Your task to perform on an android device: Search for rayovac triple a on bestbuy, select the first entry, add it to the cart, then select checkout. Image 0: 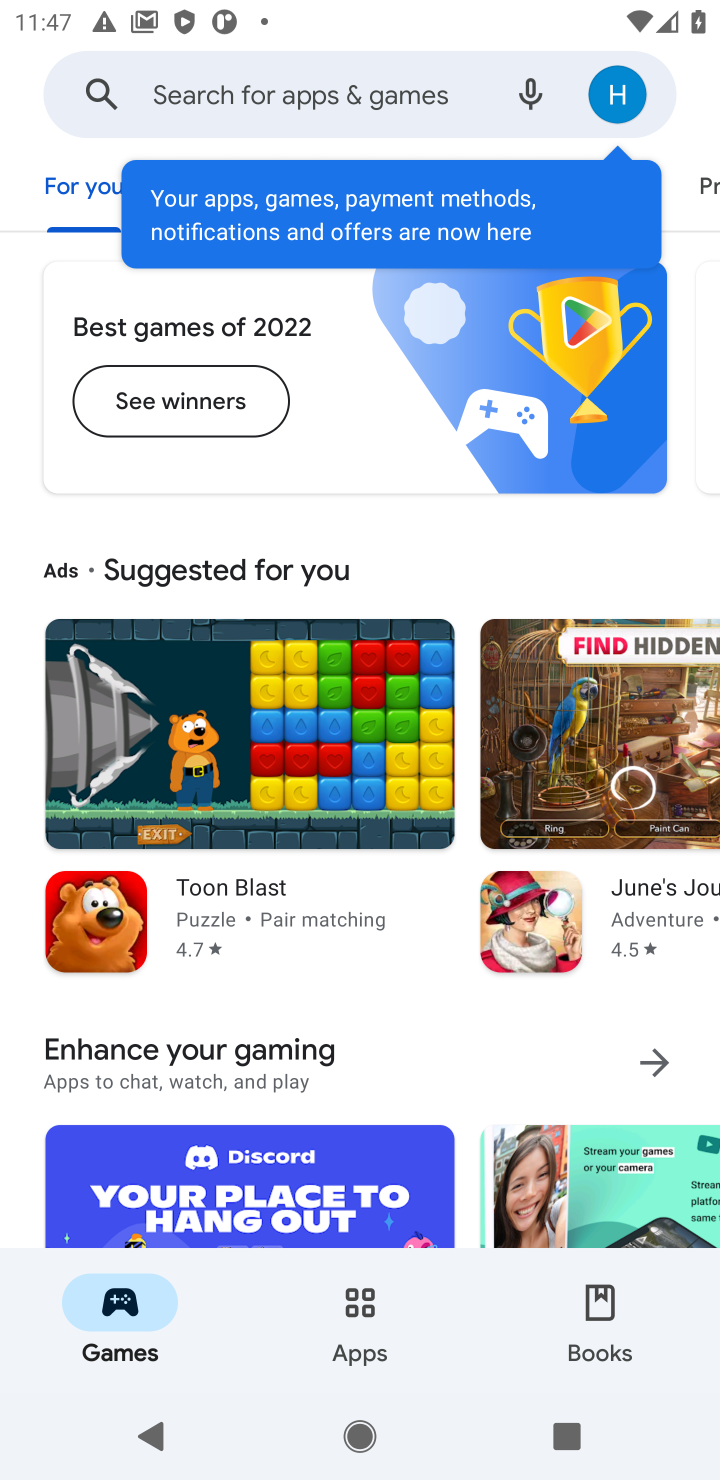
Step 0: press home button
Your task to perform on an android device: Search for rayovac triple a on bestbuy, select the first entry, add it to the cart, then select checkout. Image 1: 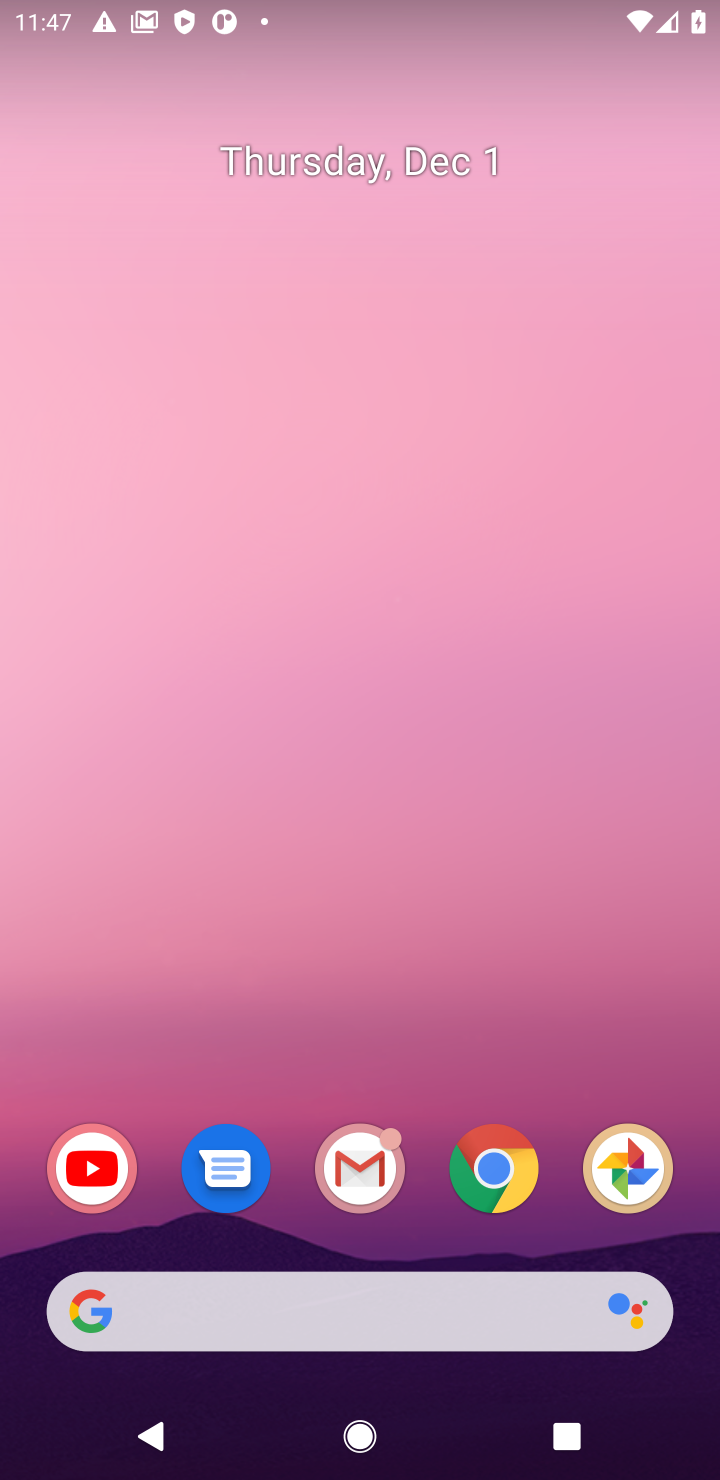
Step 1: click (502, 1177)
Your task to perform on an android device: Search for rayovac triple a on bestbuy, select the first entry, add it to the cart, then select checkout. Image 2: 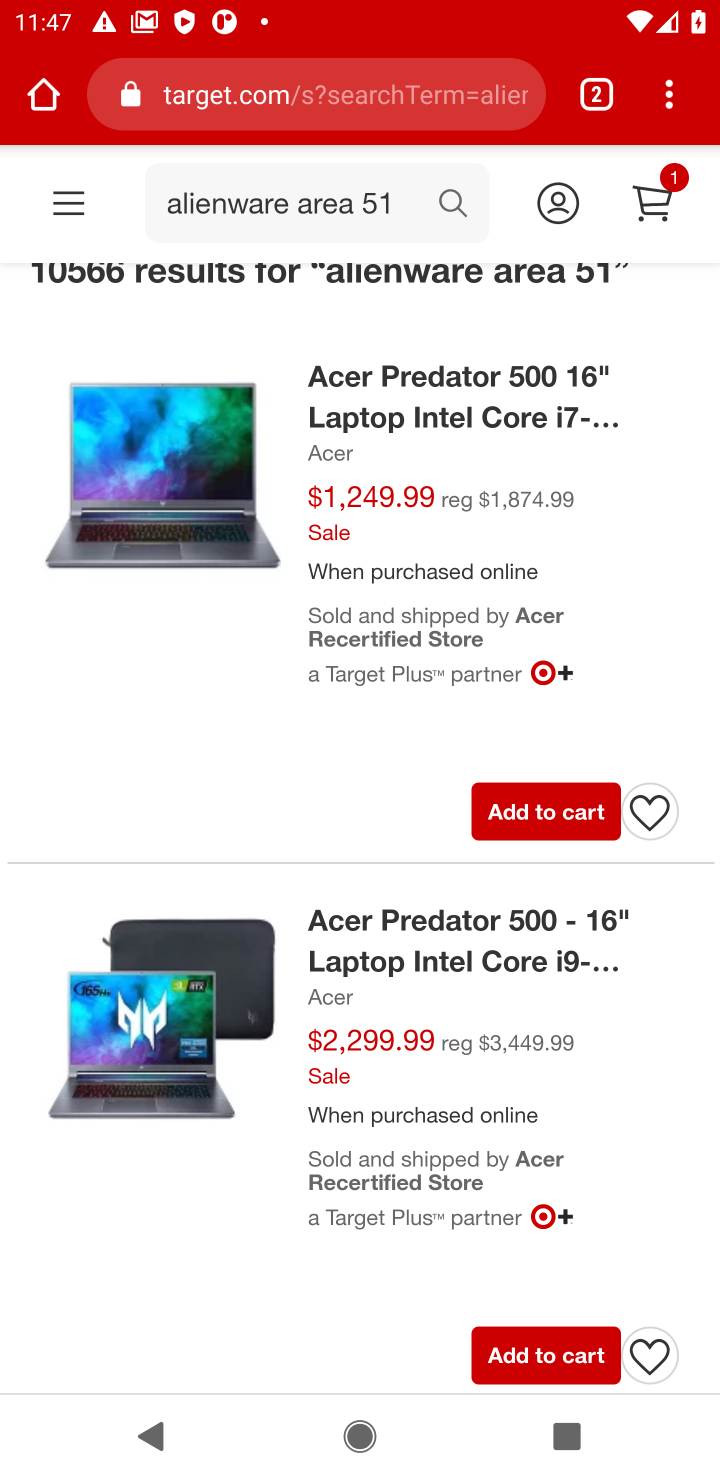
Step 2: click (260, 104)
Your task to perform on an android device: Search for rayovac triple a on bestbuy, select the first entry, add it to the cart, then select checkout. Image 3: 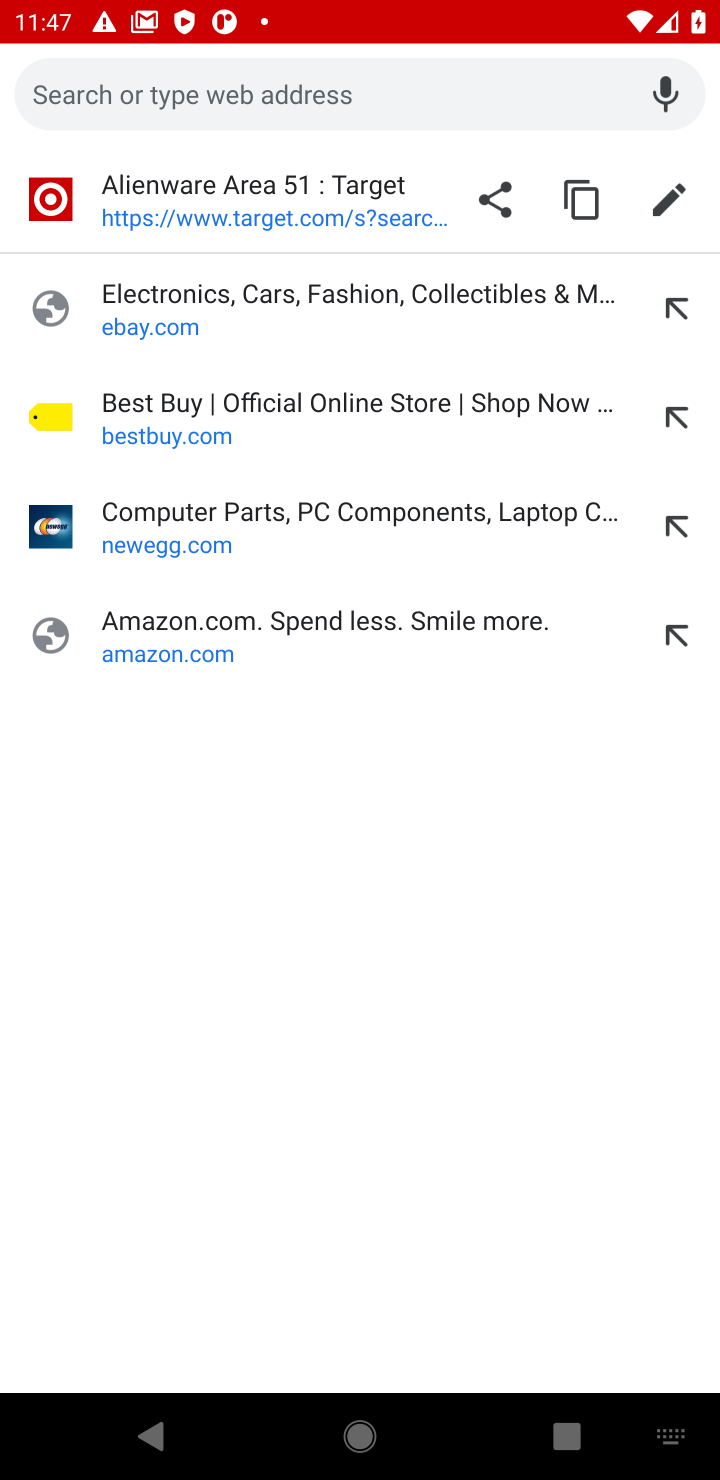
Step 3: click (157, 425)
Your task to perform on an android device: Search for rayovac triple a on bestbuy, select the first entry, add it to the cart, then select checkout. Image 4: 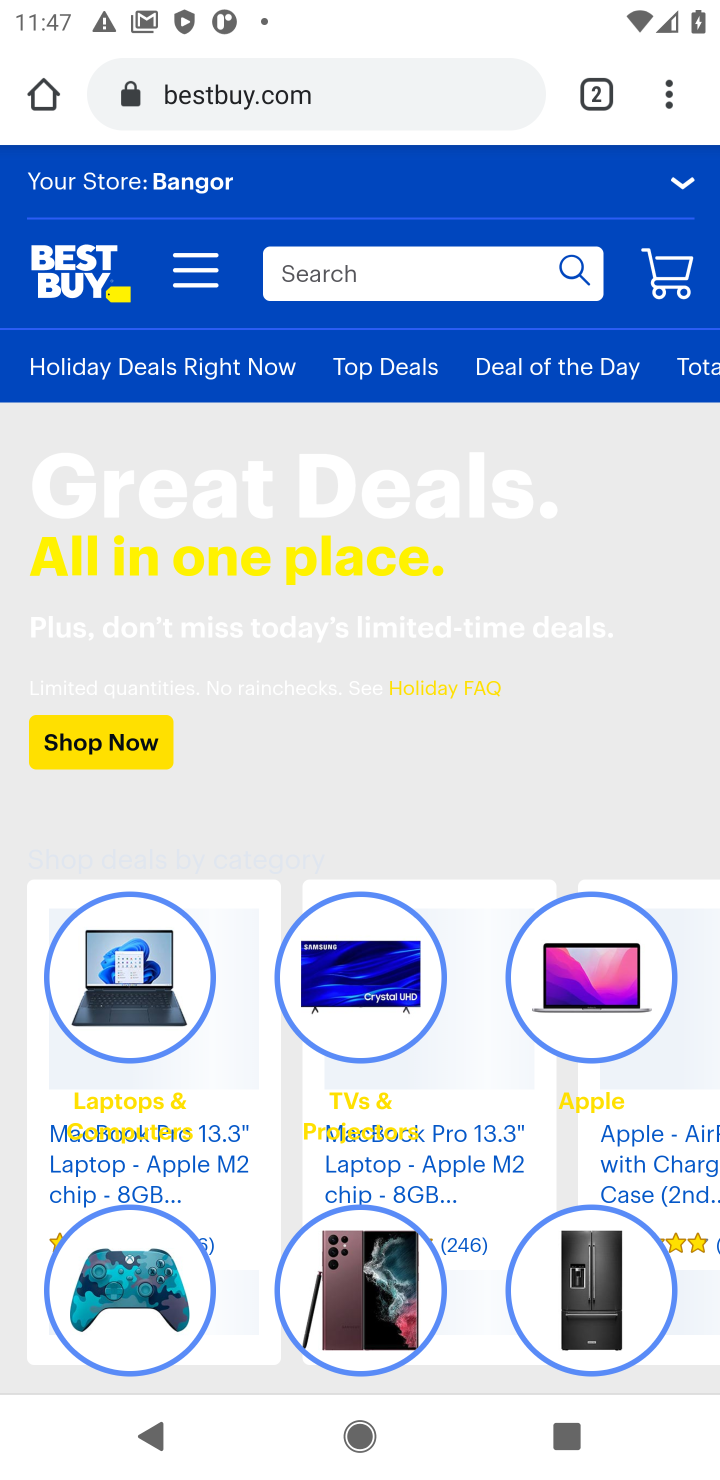
Step 4: click (319, 280)
Your task to perform on an android device: Search for rayovac triple a on bestbuy, select the first entry, add it to the cart, then select checkout. Image 5: 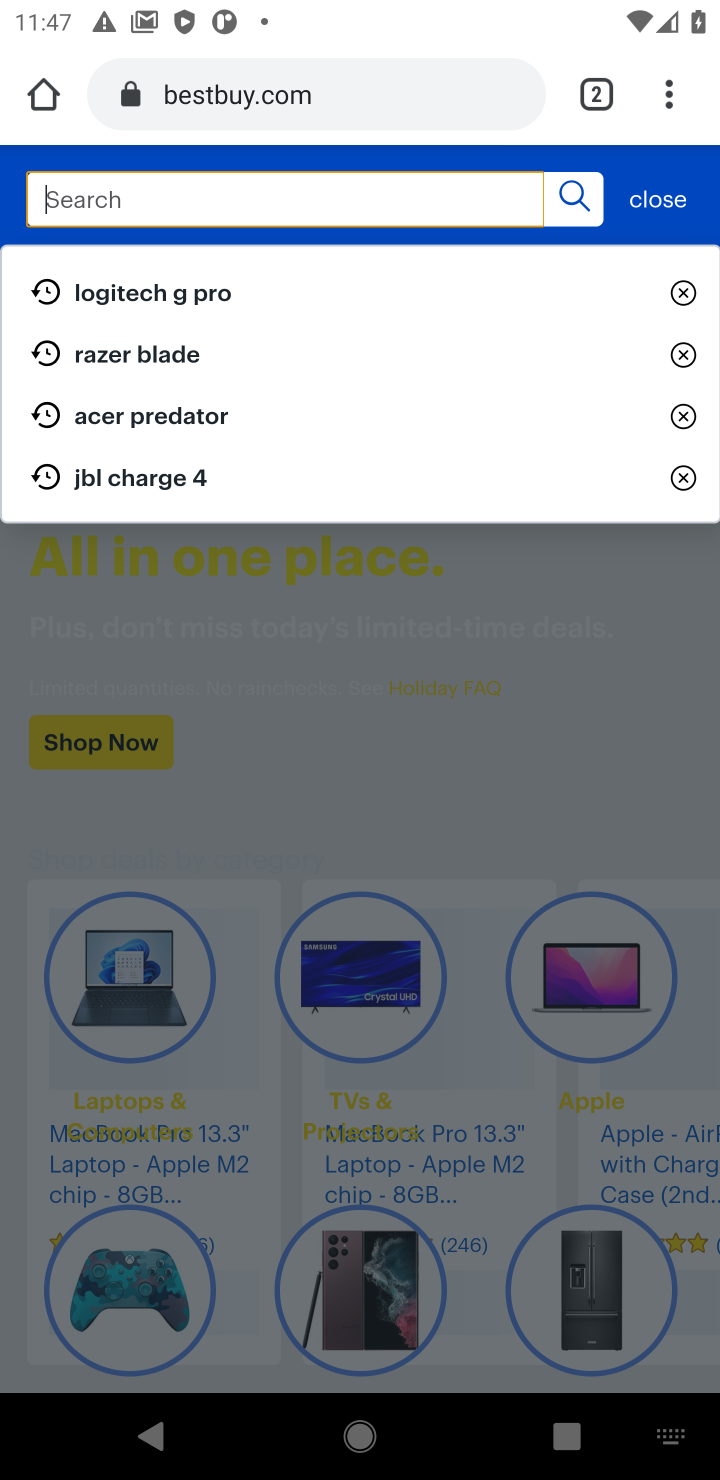
Step 5: type "rayovac triple a"
Your task to perform on an android device: Search for rayovac triple a on bestbuy, select the first entry, add it to the cart, then select checkout. Image 6: 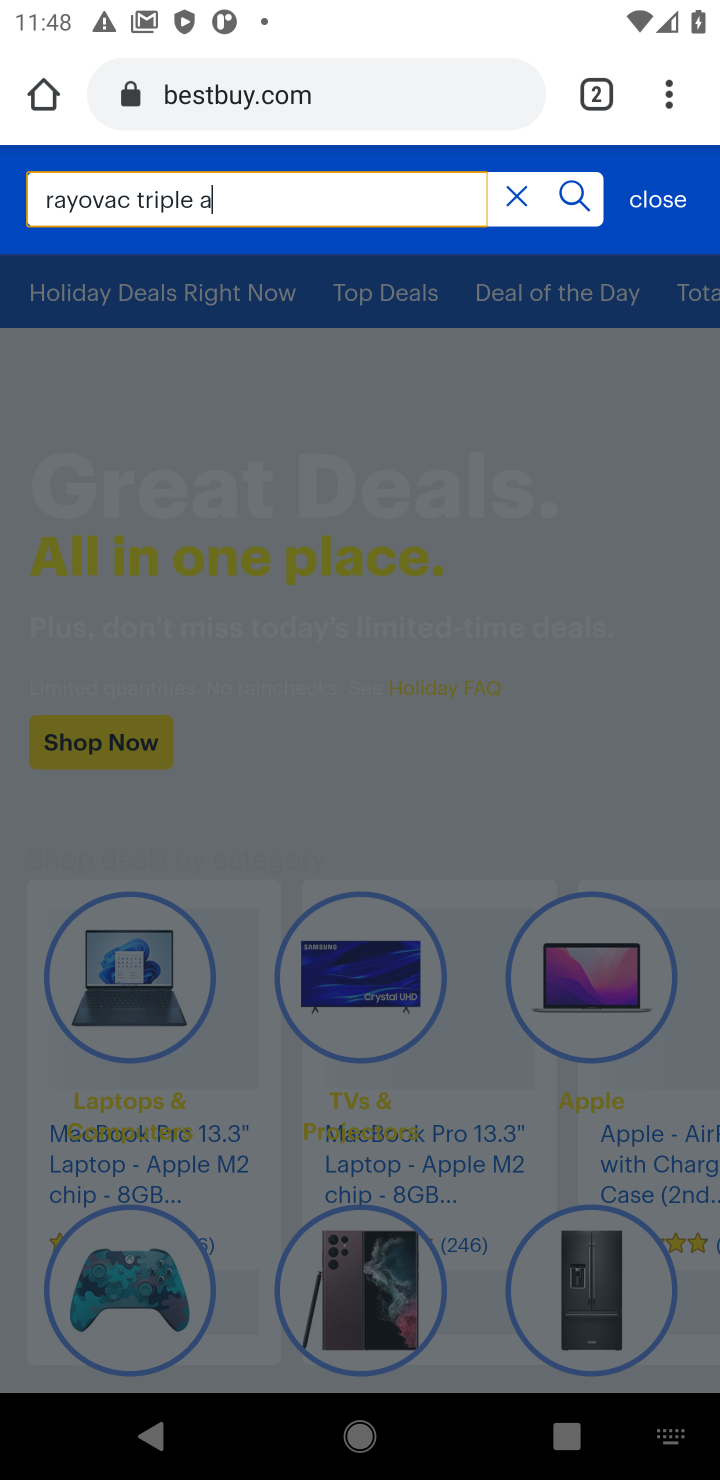
Step 6: click (574, 196)
Your task to perform on an android device: Search for rayovac triple a on bestbuy, select the first entry, add it to the cart, then select checkout. Image 7: 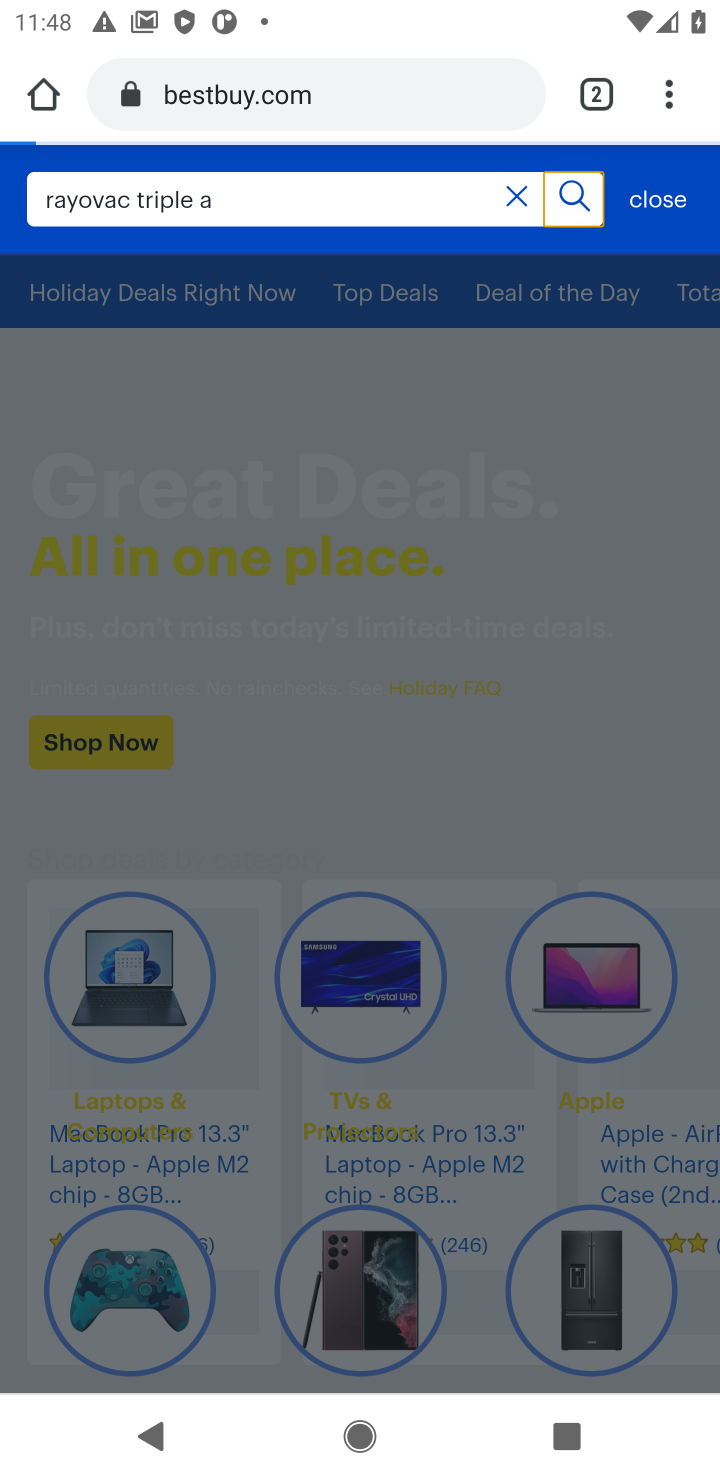
Step 7: click (572, 200)
Your task to perform on an android device: Search for rayovac triple a on bestbuy, select the first entry, add it to the cart, then select checkout. Image 8: 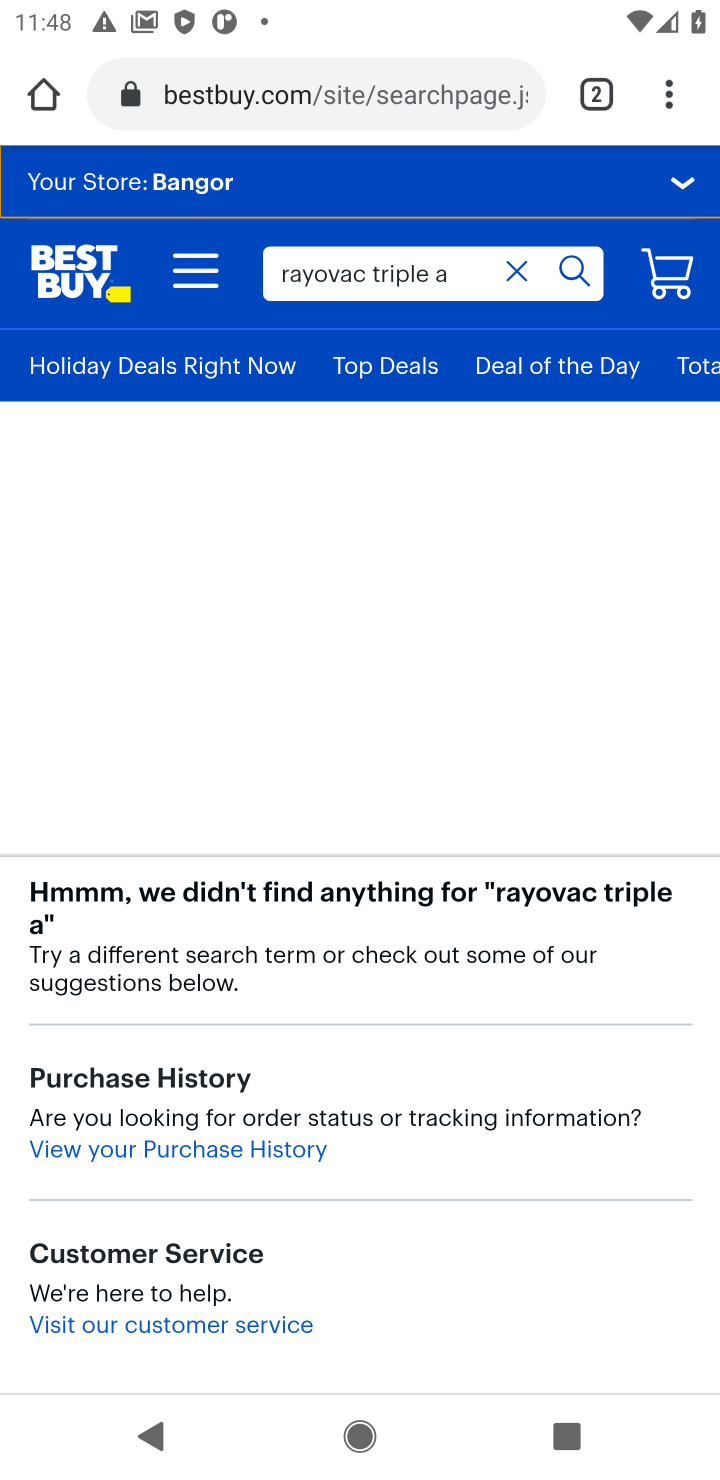
Step 8: task complete